Your task to perform on an android device: turn on airplane mode Image 0: 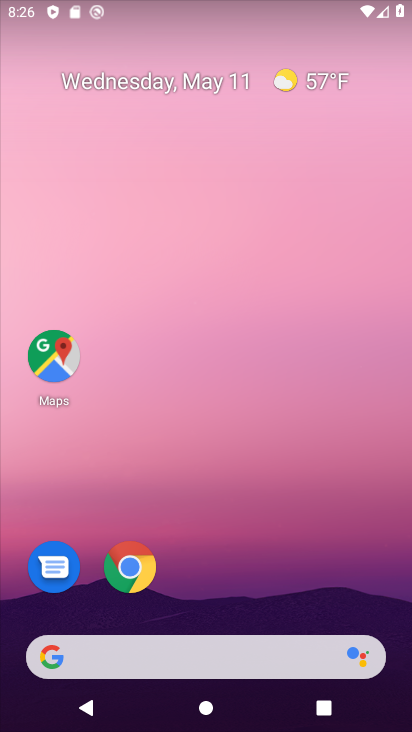
Step 0: drag from (296, 515) to (211, 69)
Your task to perform on an android device: turn on airplane mode Image 1: 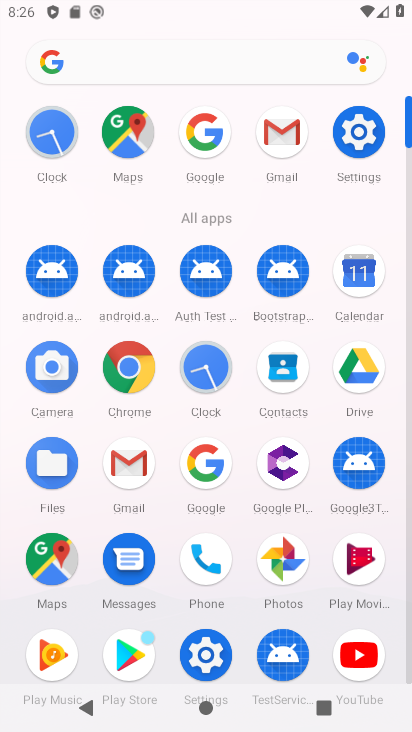
Step 1: click (341, 116)
Your task to perform on an android device: turn on airplane mode Image 2: 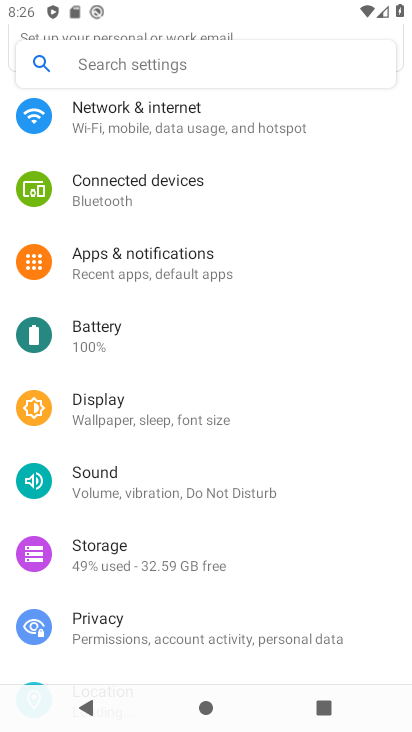
Step 2: click (187, 123)
Your task to perform on an android device: turn on airplane mode Image 3: 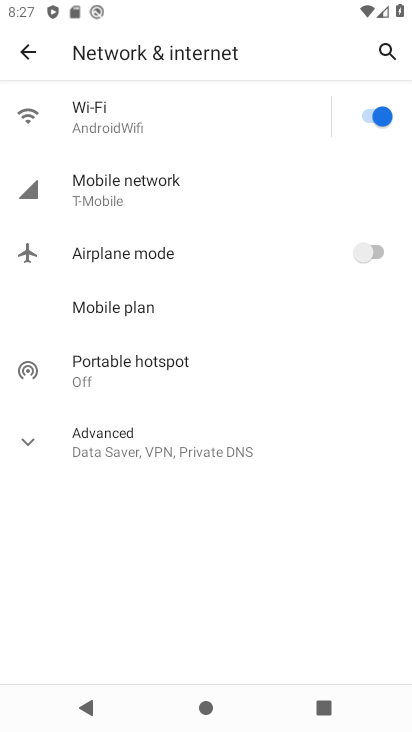
Step 3: click (369, 250)
Your task to perform on an android device: turn on airplane mode Image 4: 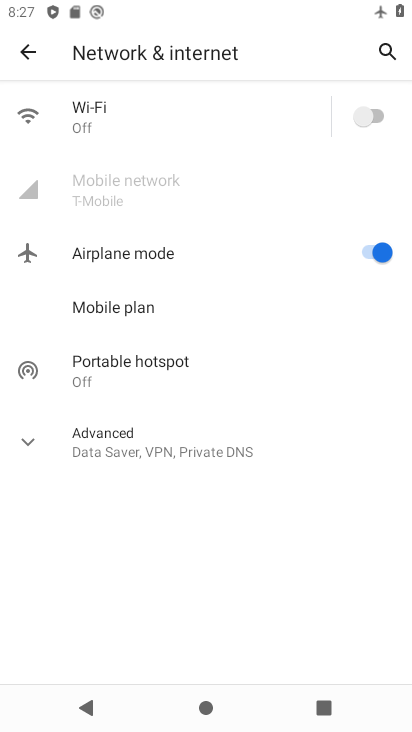
Step 4: task complete